Your task to perform on an android device: Show me recent news Image 0: 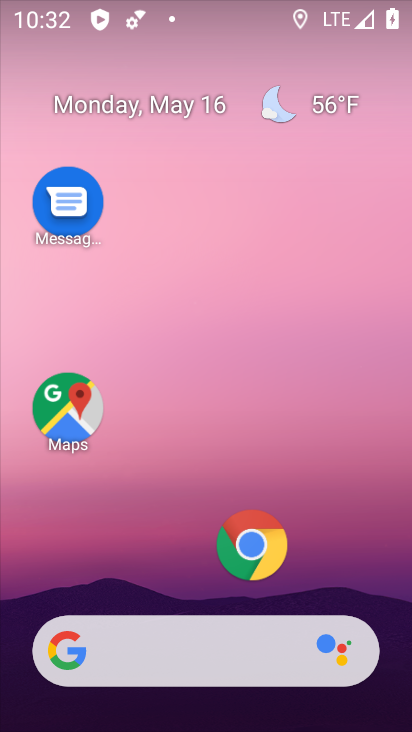
Step 0: click (163, 622)
Your task to perform on an android device: Show me recent news Image 1: 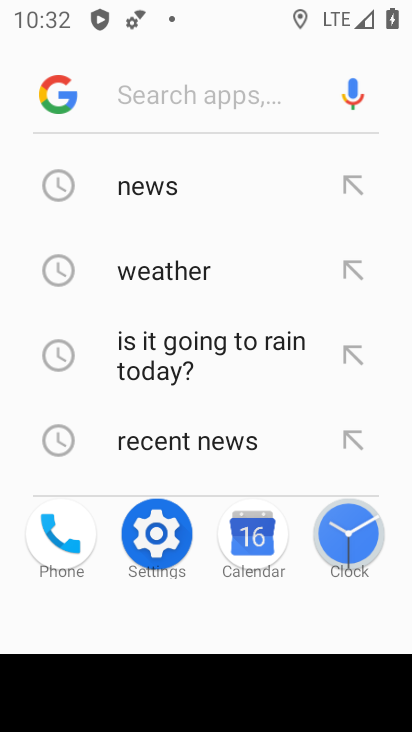
Step 1: click (151, 188)
Your task to perform on an android device: Show me recent news Image 2: 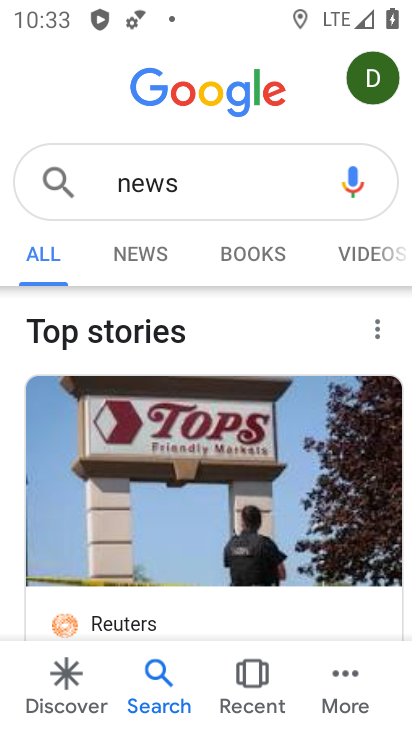
Step 2: task complete